Your task to perform on an android device: Go to Amazon Image 0: 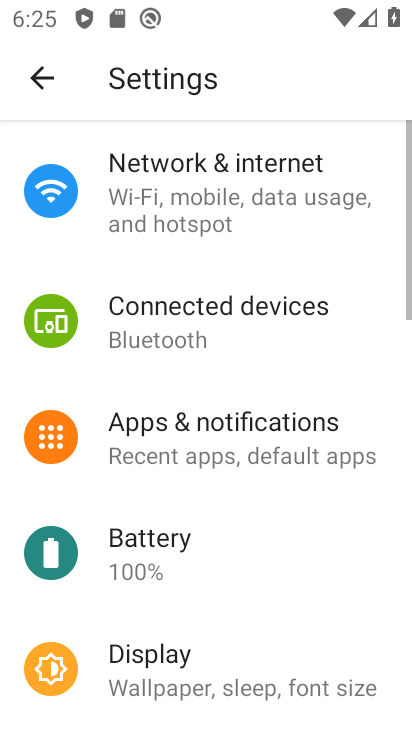
Step 0: press home button
Your task to perform on an android device: Go to Amazon Image 1: 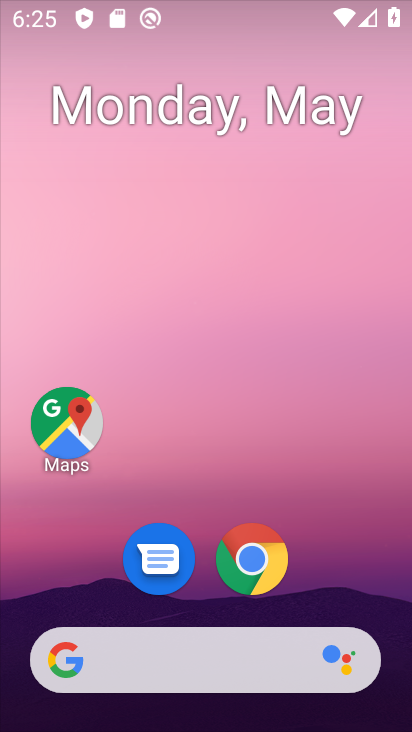
Step 1: drag from (384, 608) to (281, 54)
Your task to perform on an android device: Go to Amazon Image 2: 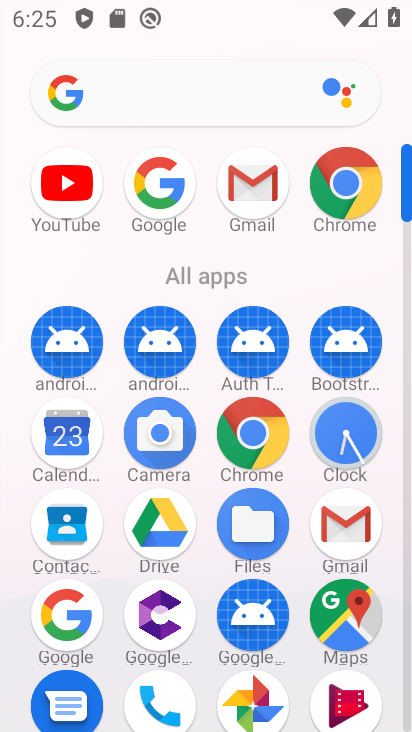
Step 2: click (176, 191)
Your task to perform on an android device: Go to Amazon Image 3: 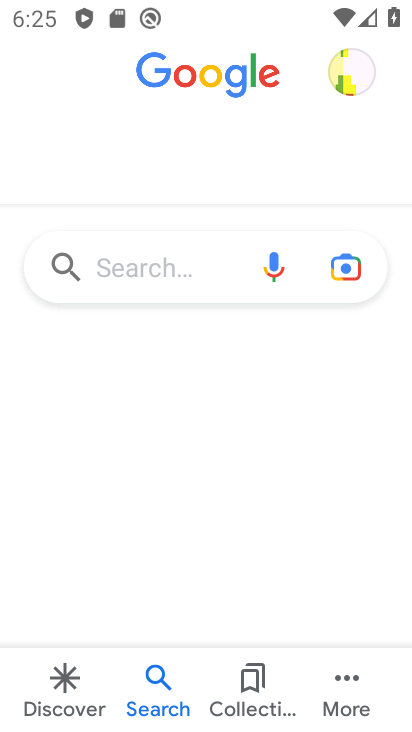
Step 3: click (165, 269)
Your task to perform on an android device: Go to Amazon Image 4: 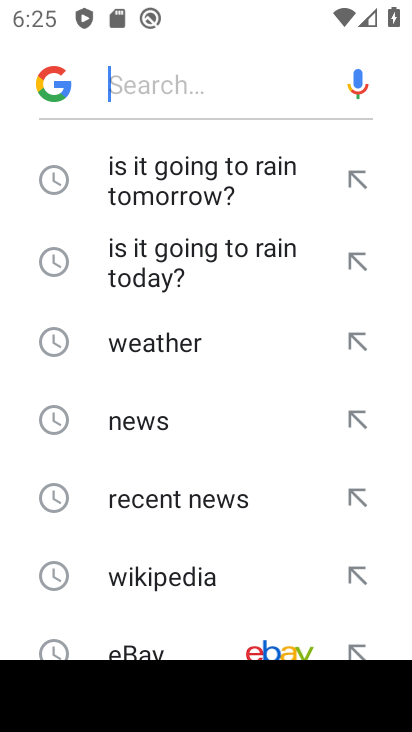
Step 4: drag from (162, 581) to (235, 121)
Your task to perform on an android device: Go to Amazon Image 5: 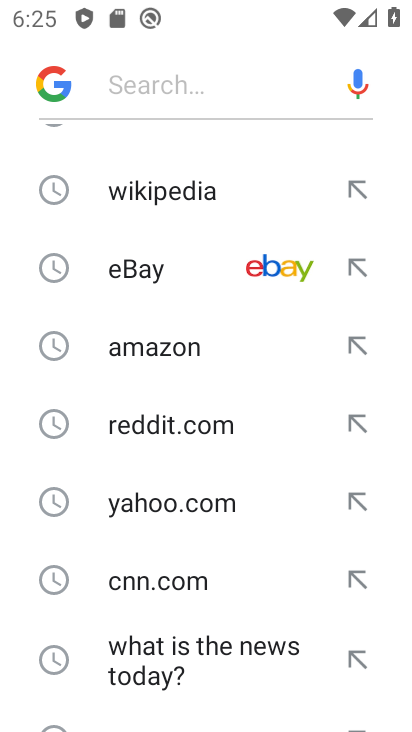
Step 5: click (163, 362)
Your task to perform on an android device: Go to Amazon Image 6: 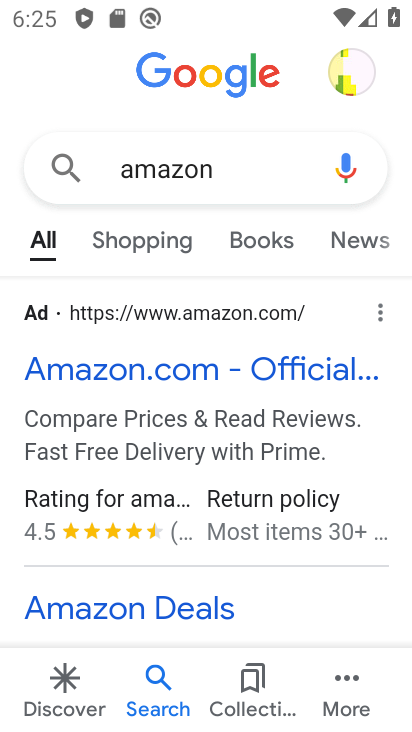
Step 6: task complete